Your task to perform on an android device: Open internet settings Image 0: 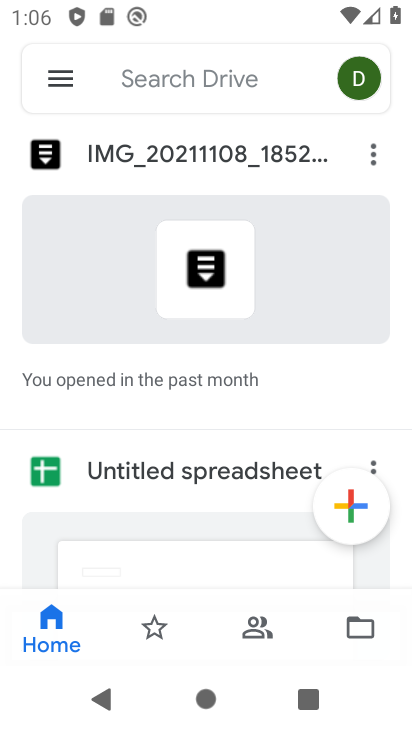
Step 0: press home button
Your task to perform on an android device: Open internet settings Image 1: 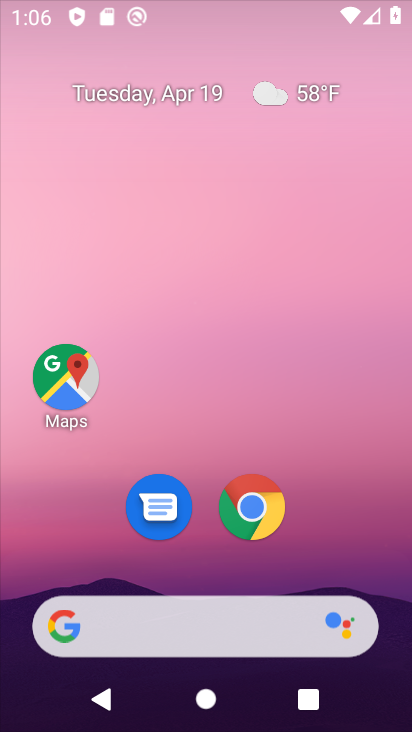
Step 1: drag from (210, 555) to (216, 93)
Your task to perform on an android device: Open internet settings Image 2: 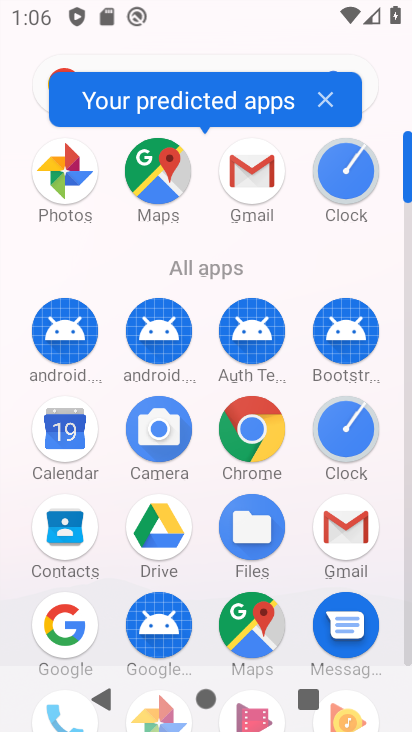
Step 2: drag from (194, 570) to (204, 240)
Your task to perform on an android device: Open internet settings Image 3: 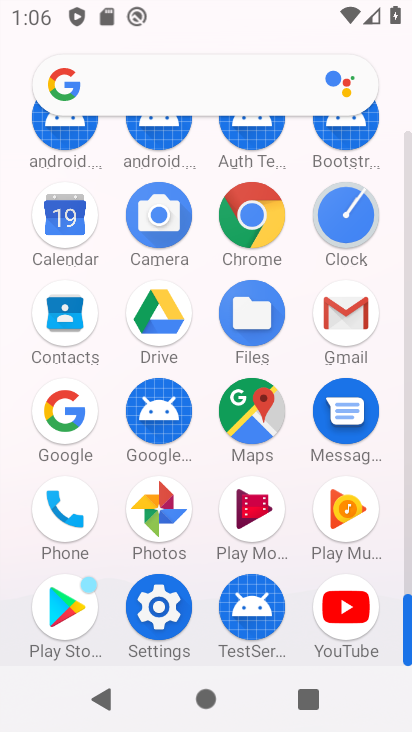
Step 3: click (162, 593)
Your task to perform on an android device: Open internet settings Image 4: 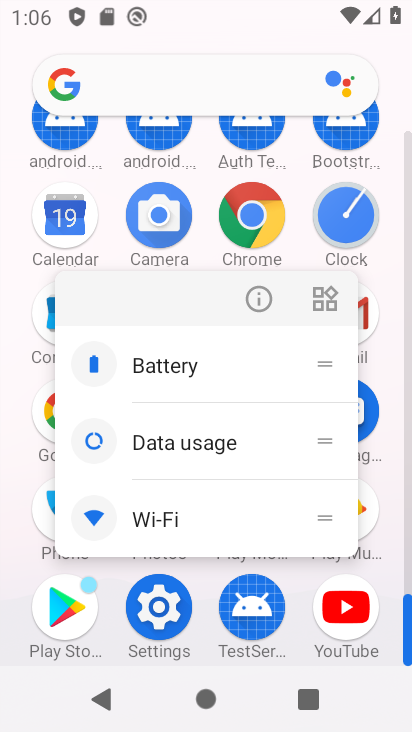
Step 4: click (157, 607)
Your task to perform on an android device: Open internet settings Image 5: 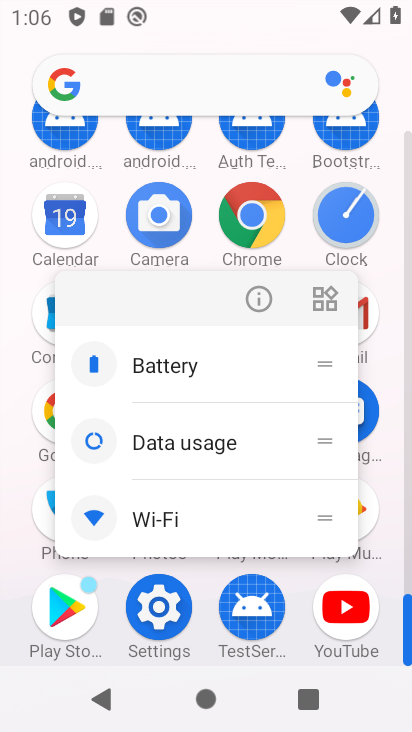
Step 5: click (157, 610)
Your task to perform on an android device: Open internet settings Image 6: 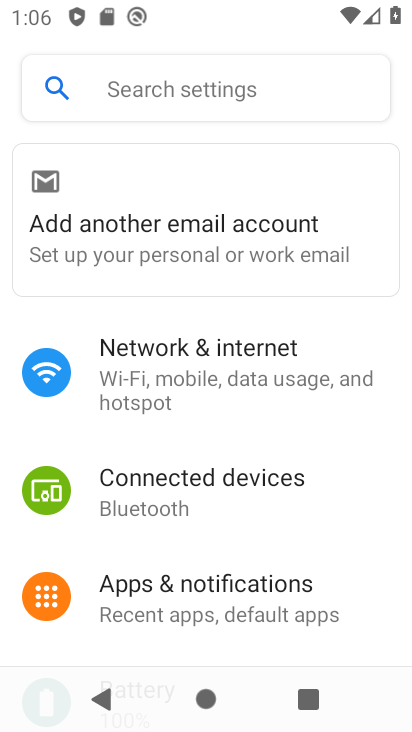
Step 6: click (242, 364)
Your task to perform on an android device: Open internet settings Image 7: 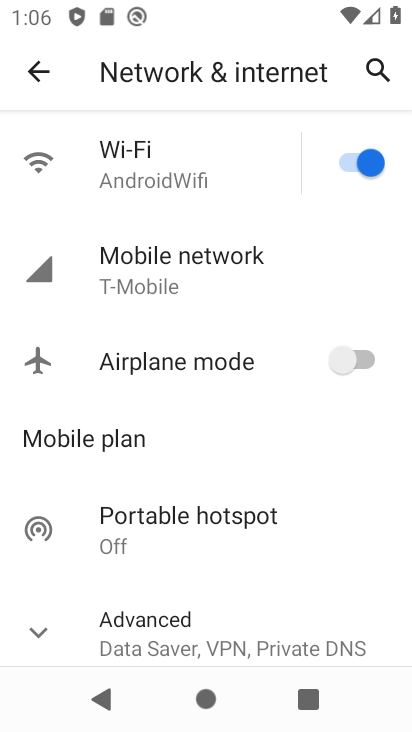
Step 7: click (159, 169)
Your task to perform on an android device: Open internet settings Image 8: 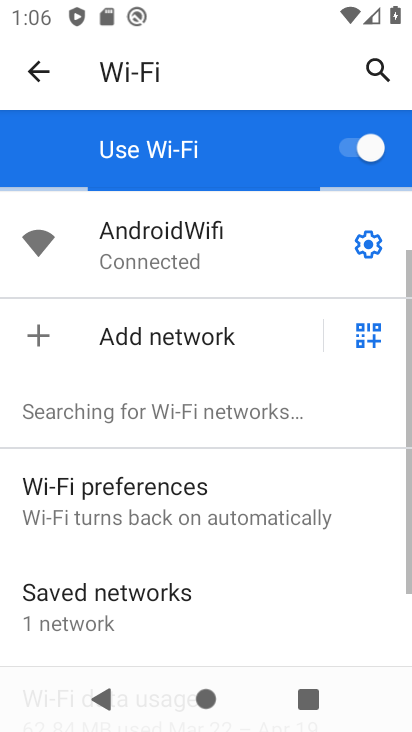
Step 8: click (366, 245)
Your task to perform on an android device: Open internet settings Image 9: 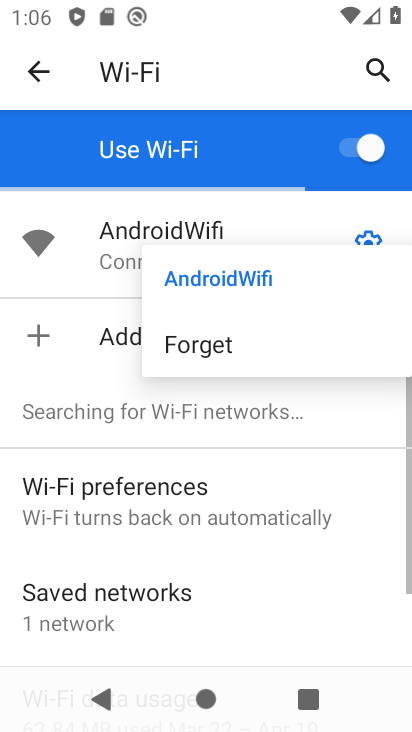
Step 9: click (326, 219)
Your task to perform on an android device: Open internet settings Image 10: 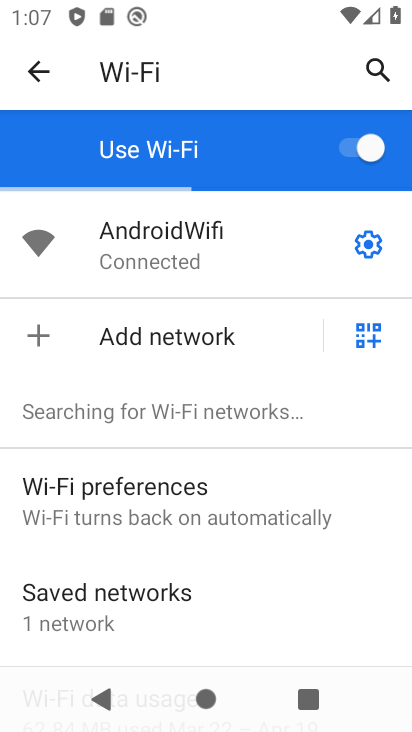
Step 10: click (371, 230)
Your task to perform on an android device: Open internet settings Image 11: 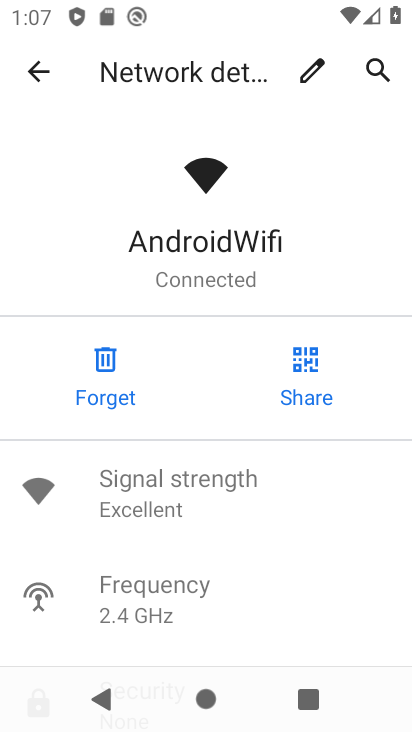
Step 11: task complete